Your task to perform on an android device: Show me popular games on the Play Store Image 0: 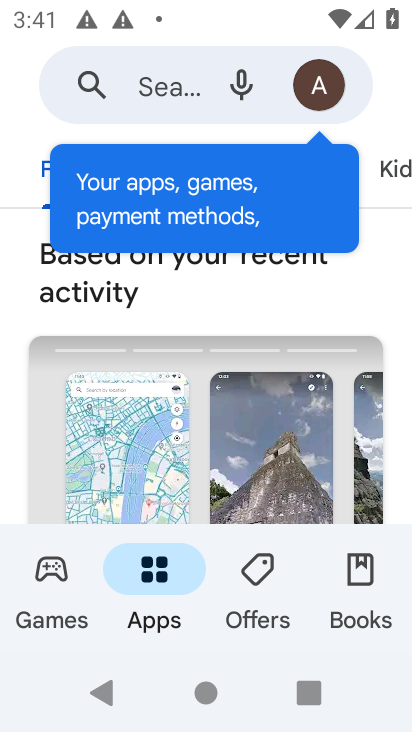
Step 0: click (147, 78)
Your task to perform on an android device: Show me popular games on the Play Store Image 1: 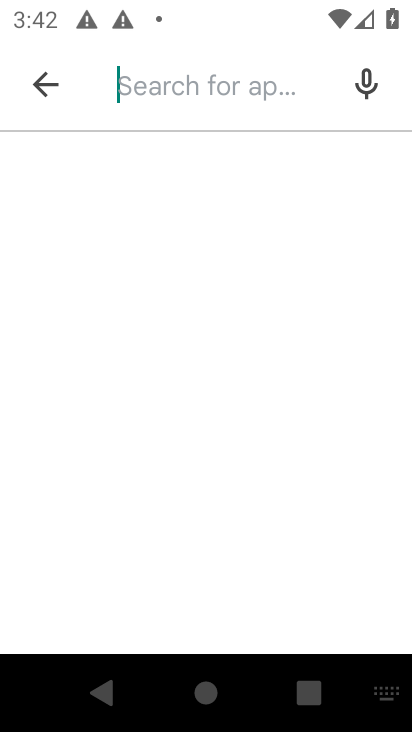
Step 1: type "popular games"
Your task to perform on an android device: Show me popular games on the Play Store Image 2: 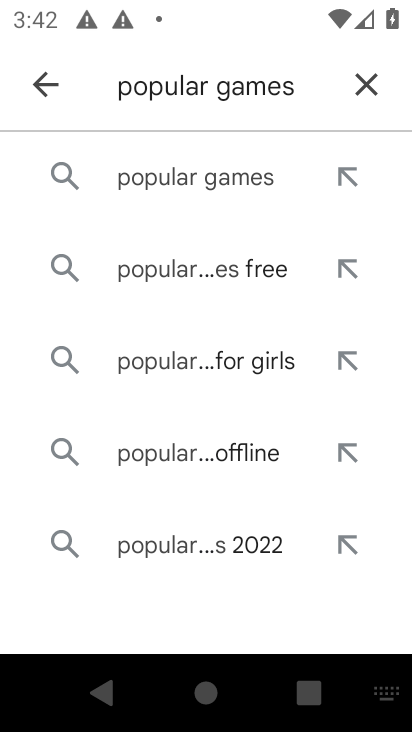
Step 2: type ""
Your task to perform on an android device: Show me popular games on the Play Store Image 3: 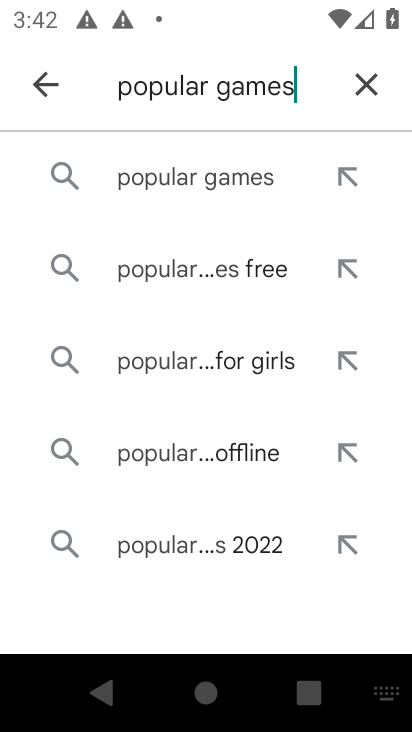
Step 3: type ""
Your task to perform on an android device: Show me popular games on the Play Store Image 4: 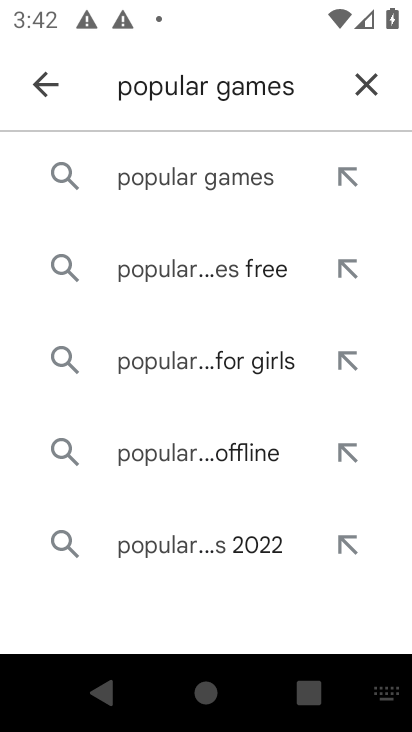
Step 4: click (229, 194)
Your task to perform on an android device: Show me popular games on the Play Store Image 5: 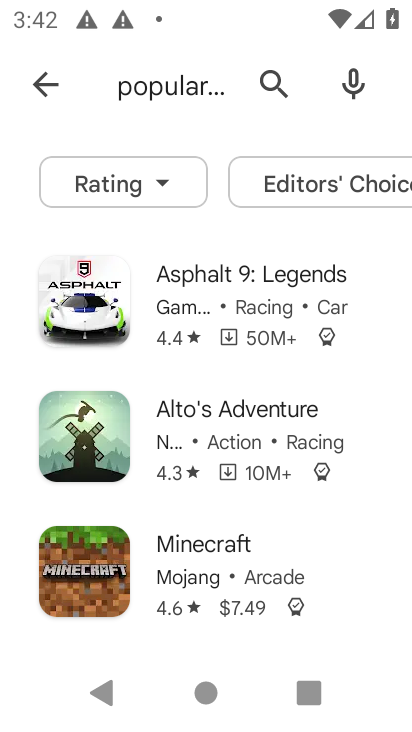
Step 5: task complete